Your task to perform on an android device: check battery use Image 0: 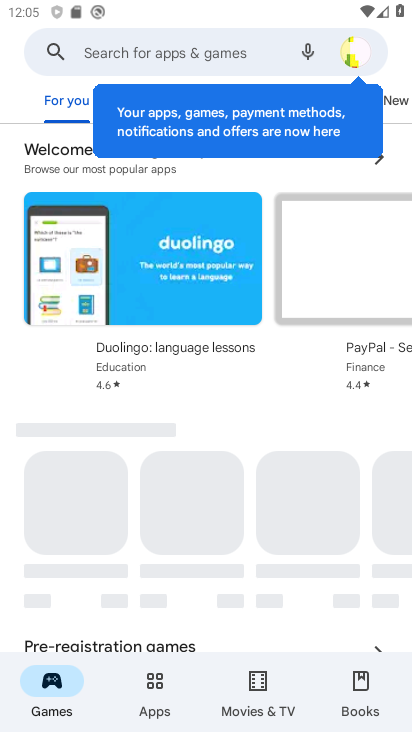
Step 0: press home button
Your task to perform on an android device: check battery use Image 1: 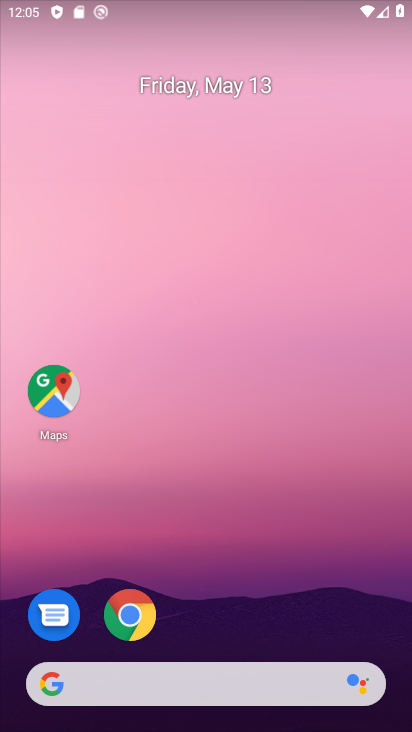
Step 1: drag from (233, 323) to (264, 23)
Your task to perform on an android device: check battery use Image 2: 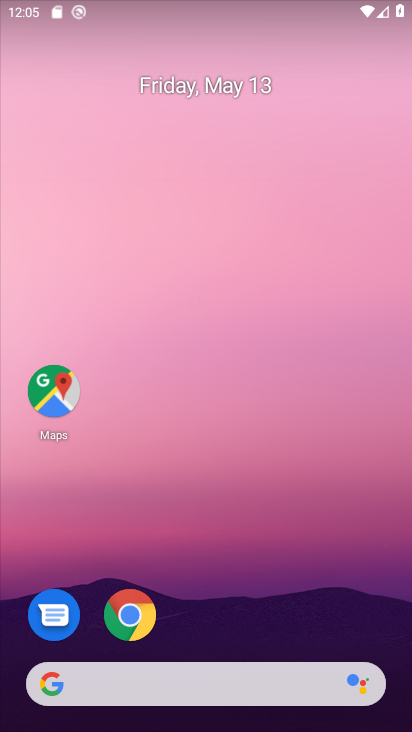
Step 2: drag from (244, 584) to (291, 3)
Your task to perform on an android device: check battery use Image 3: 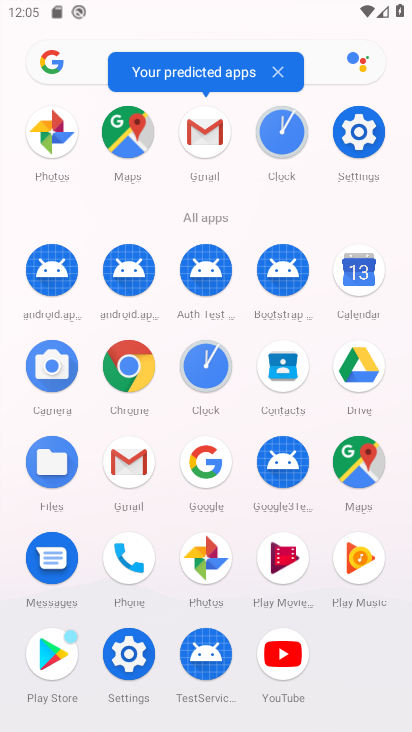
Step 3: click (363, 143)
Your task to perform on an android device: check battery use Image 4: 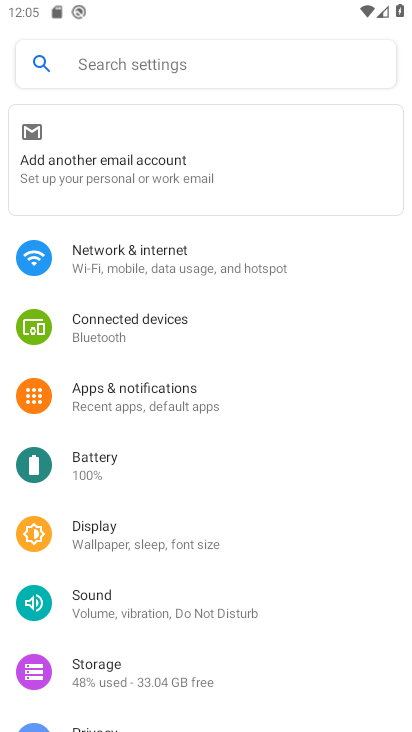
Step 4: click (101, 470)
Your task to perform on an android device: check battery use Image 5: 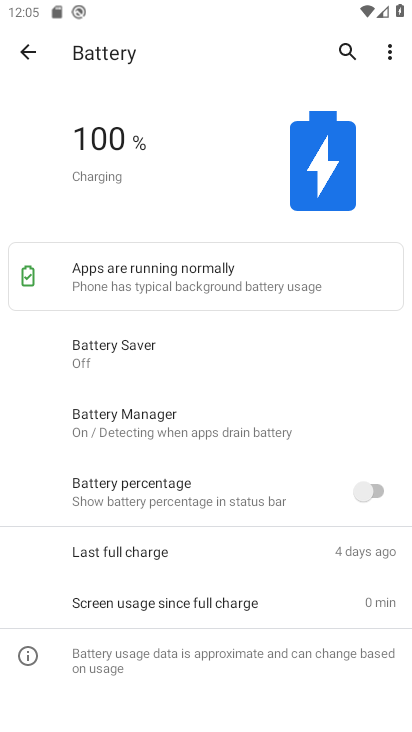
Step 5: click (390, 62)
Your task to perform on an android device: check battery use Image 6: 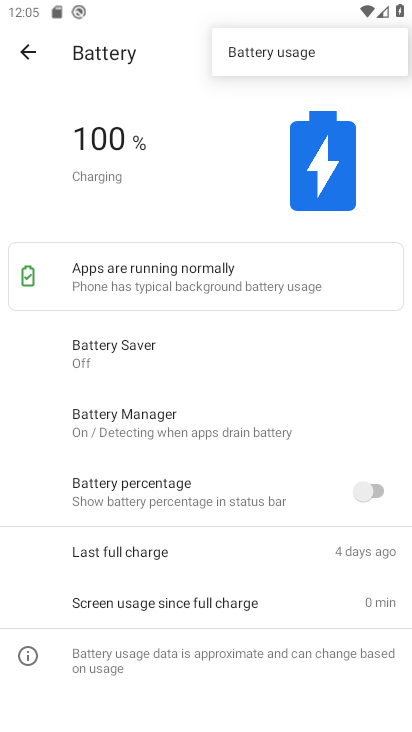
Step 6: click (390, 62)
Your task to perform on an android device: check battery use Image 7: 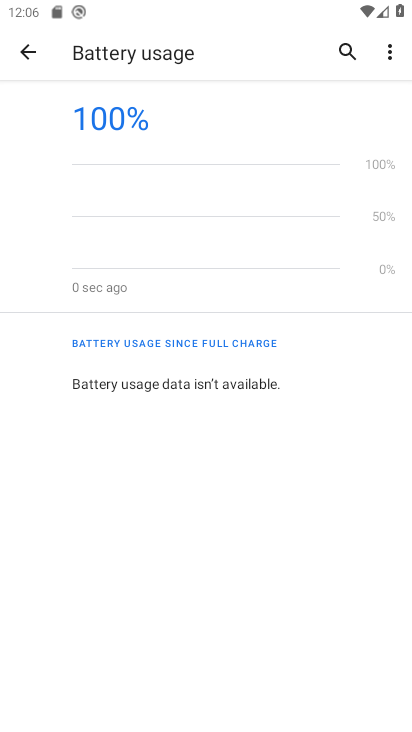
Step 7: task complete